Your task to perform on an android device: Set the phone to "Do not disturb". Image 0: 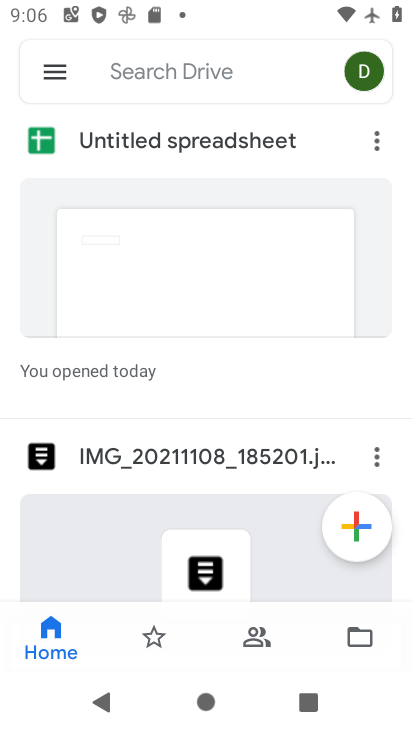
Step 0: press home button
Your task to perform on an android device: Set the phone to "Do not disturb". Image 1: 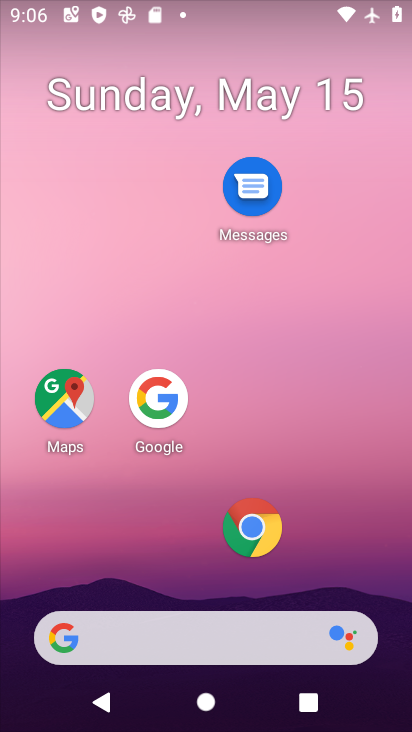
Step 1: drag from (179, 621) to (306, 193)
Your task to perform on an android device: Set the phone to "Do not disturb". Image 2: 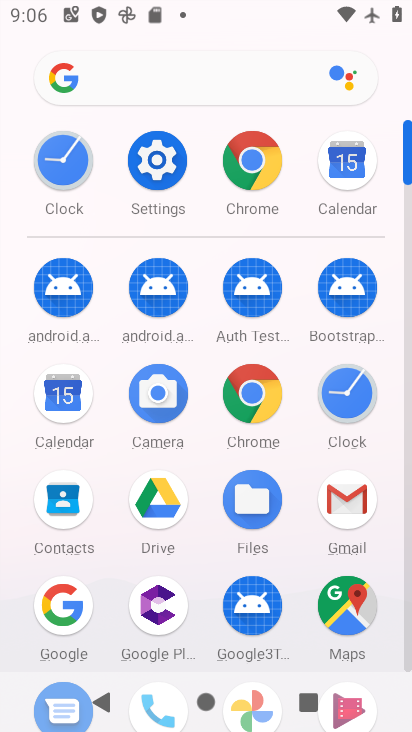
Step 2: click (172, 172)
Your task to perform on an android device: Set the phone to "Do not disturb". Image 3: 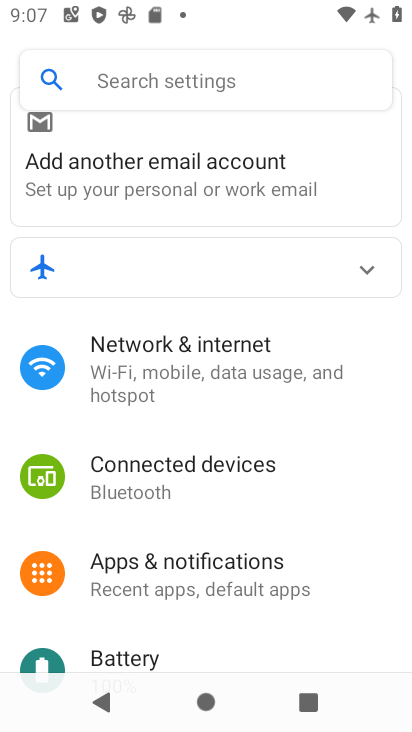
Step 3: drag from (230, 545) to (353, 205)
Your task to perform on an android device: Set the phone to "Do not disturb". Image 4: 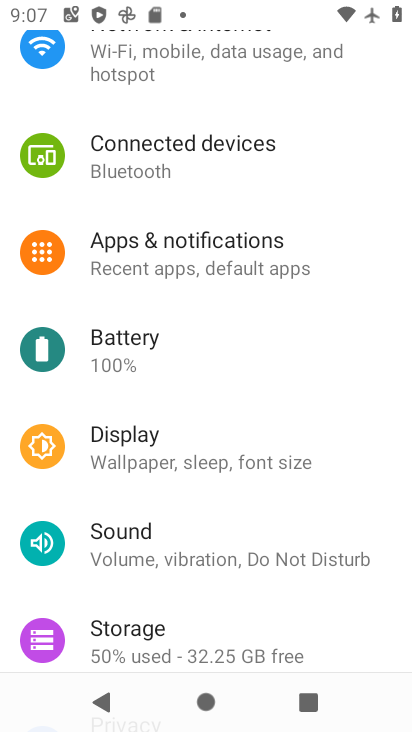
Step 4: click (161, 540)
Your task to perform on an android device: Set the phone to "Do not disturb". Image 5: 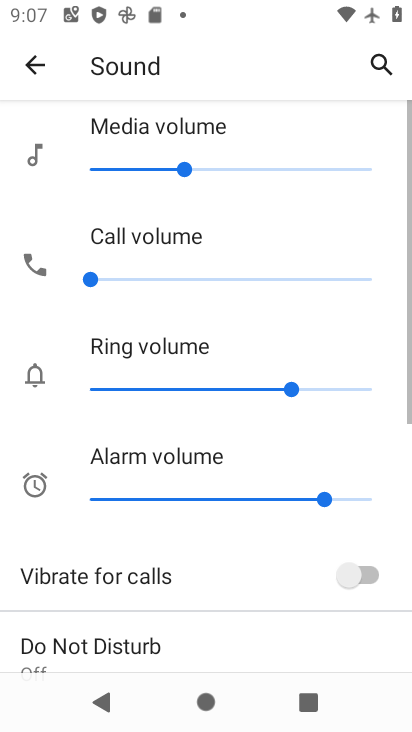
Step 5: drag from (182, 622) to (358, 243)
Your task to perform on an android device: Set the phone to "Do not disturb". Image 6: 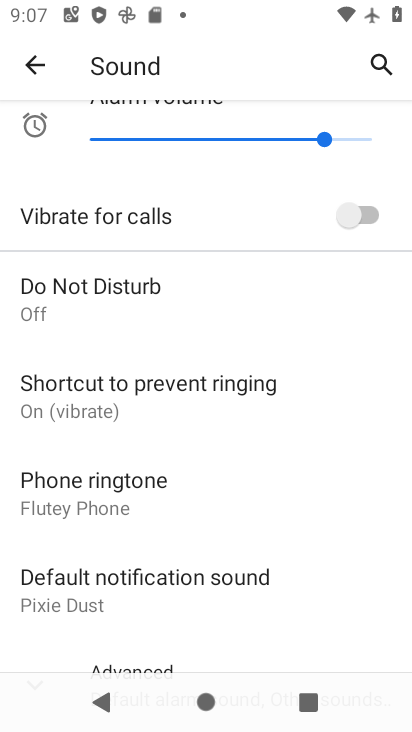
Step 6: click (93, 294)
Your task to perform on an android device: Set the phone to "Do not disturb". Image 7: 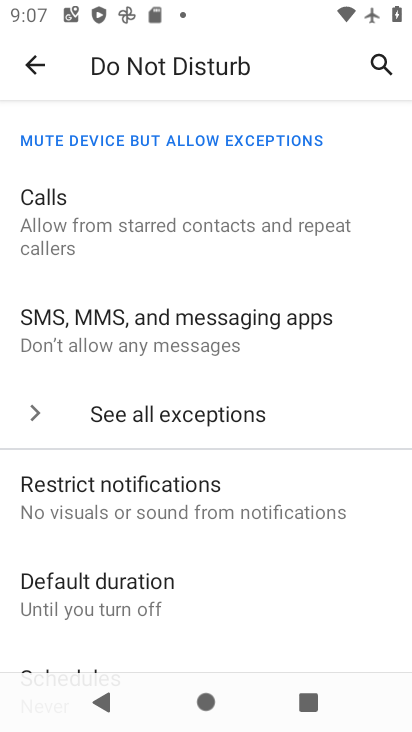
Step 7: drag from (202, 606) to (306, 306)
Your task to perform on an android device: Set the phone to "Do not disturb". Image 8: 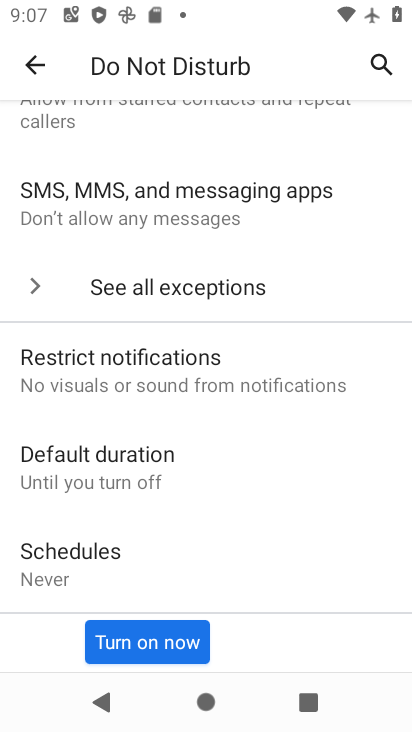
Step 8: click (144, 644)
Your task to perform on an android device: Set the phone to "Do not disturb". Image 9: 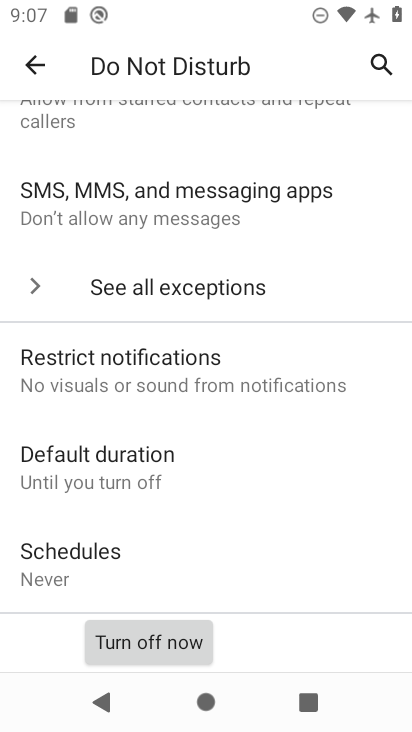
Step 9: task complete